Your task to perform on an android device: delete browsing data in the chrome app Image 0: 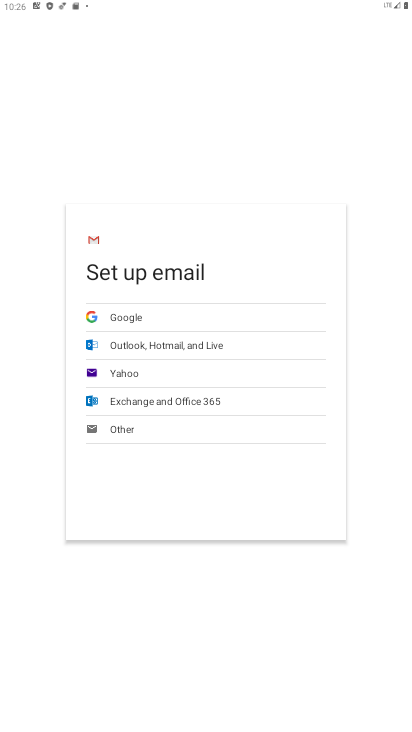
Step 0: press home button
Your task to perform on an android device: delete browsing data in the chrome app Image 1: 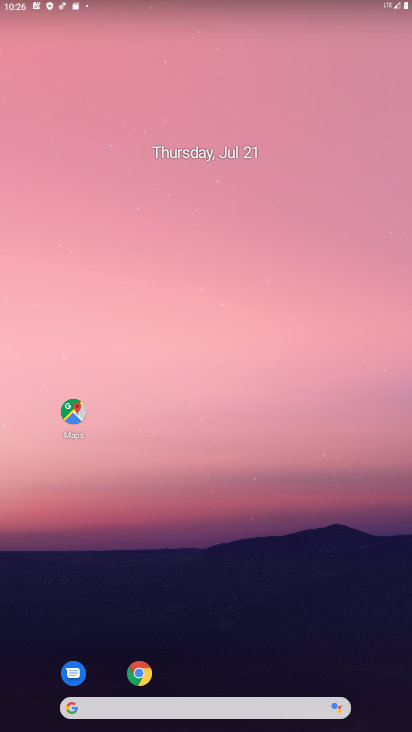
Step 1: click (135, 663)
Your task to perform on an android device: delete browsing data in the chrome app Image 2: 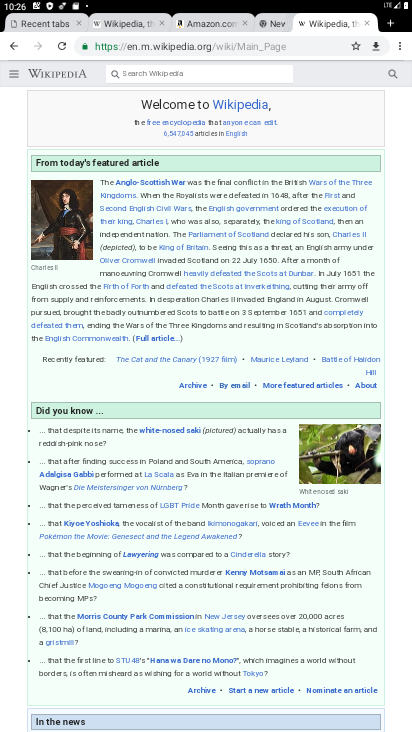
Step 2: click (393, 51)
Your task to perform on an android device: delete browsing data in the chrome app Image 3: 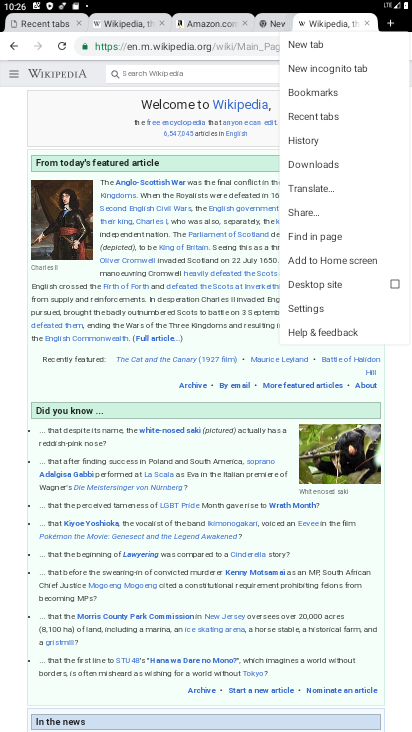
Step 3: click (331, 140)
Your task to perform on an android device: delete browsing data in the chrome app Image 4: 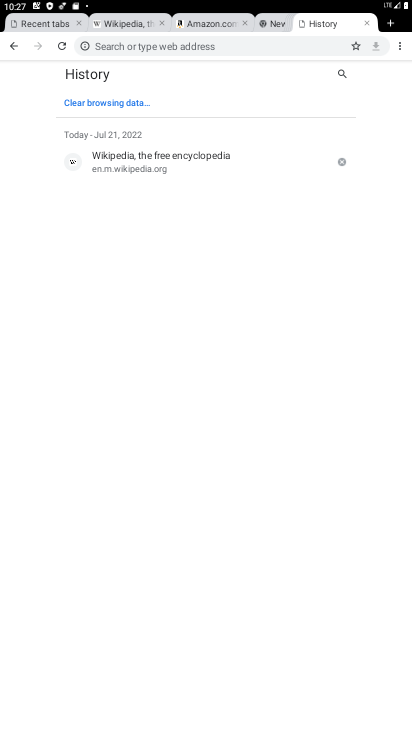
Step 4: click (79, 97)
Your task to perform on an android device: delete browsing data in the chrome app Image 5: 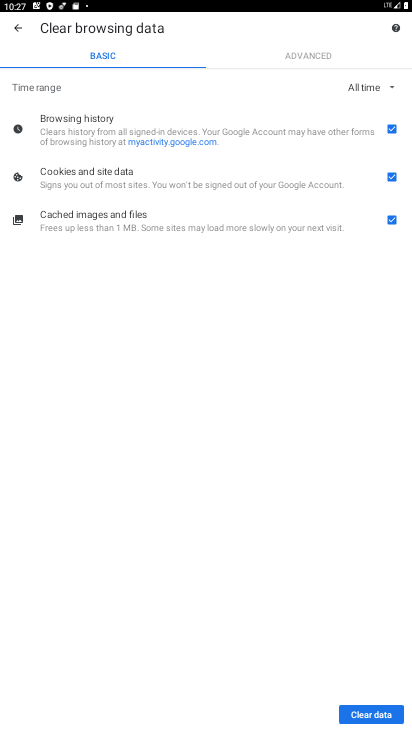
Step 5: click (368, 714)
Your task to perform on an android device: delete browsing data in the chrome app Image 6: 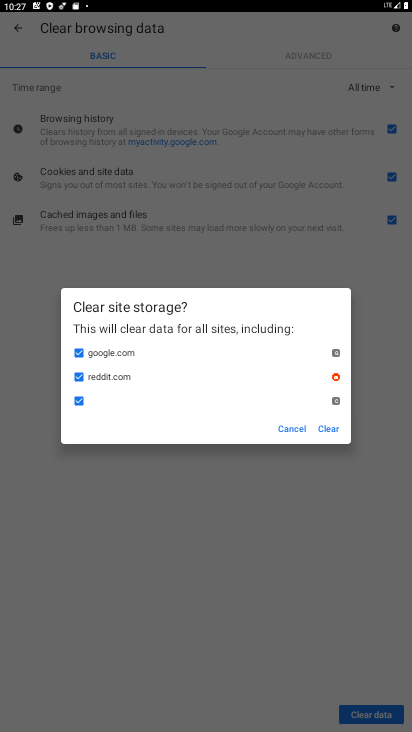
Step 6: click (322, 437)
Your task to perform on an android device: delete browsing data in the chrome app Image 7: 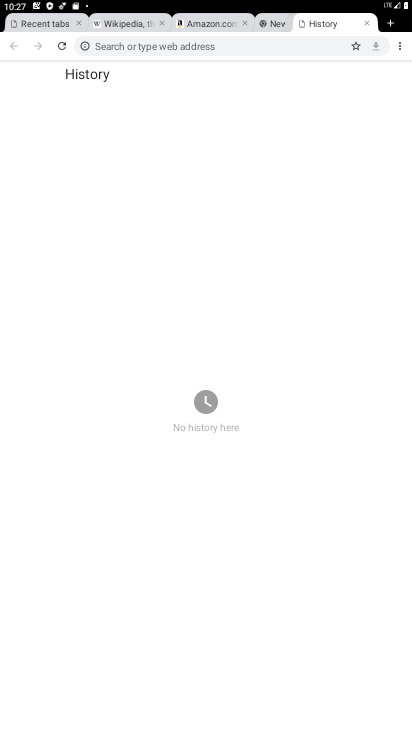
Step 7: task complete